Your task to perform on an android device: Show me the alarms in the clock app Image 0: 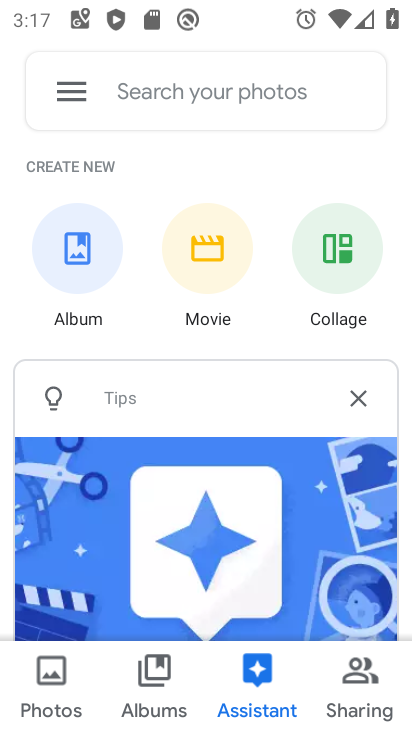
Step 0: press home button
Your task to perform on an android device: Show me the alarms in the clock app Image 1: 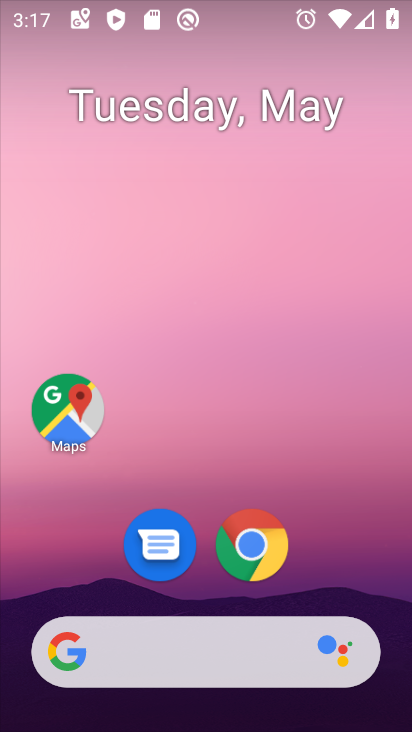
Step 1: drag from (121, 621) to (123, 291)
Your task to perform on an android device: Show me the alarms in the clock app Image 2: 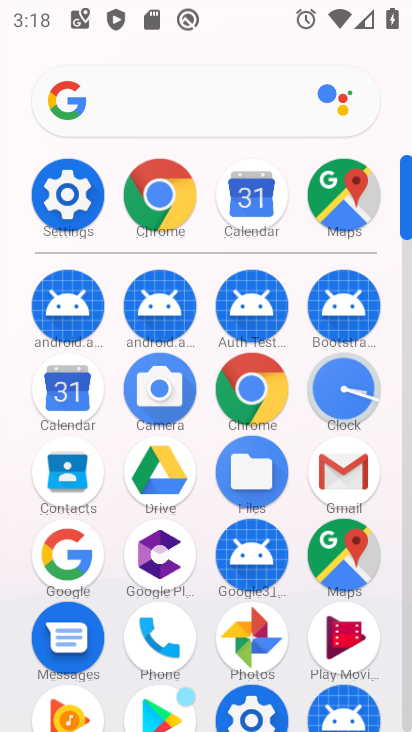
Step 2: click (351, 380)
Your task to perform on an android device: Show me the alarms in the clock app Image 3: 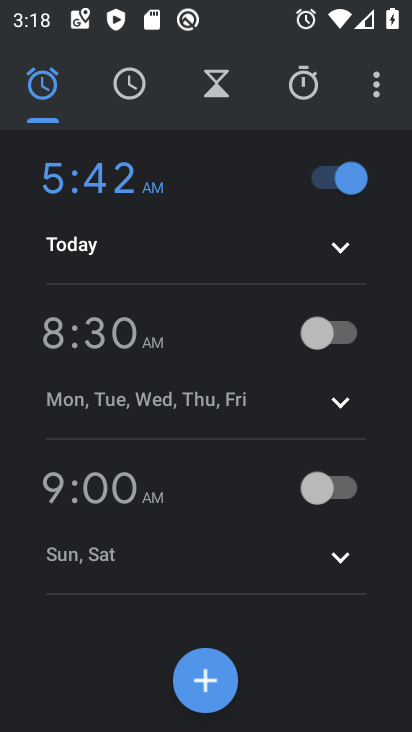
Step 3: task complete